Your task to perform on an android device: Open network settings Image 0: 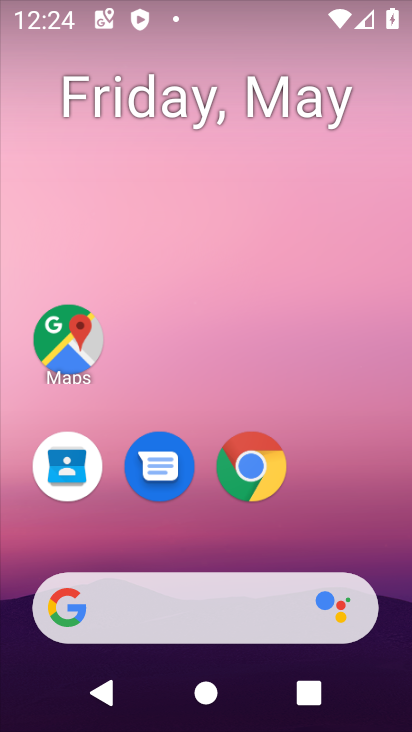
Step 0: drag from (205, 565) to (214, 109)
Your task to perform on an android device: Open network settings Image 1: 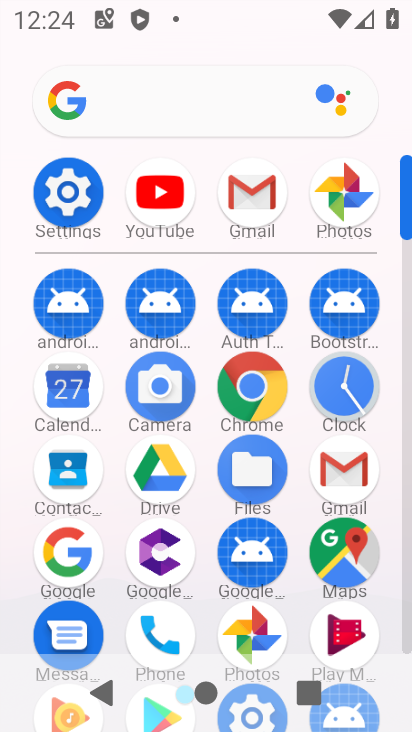
Step 1: click (72, 195)
Your task to perform on an android device: Open network settings Image 2: 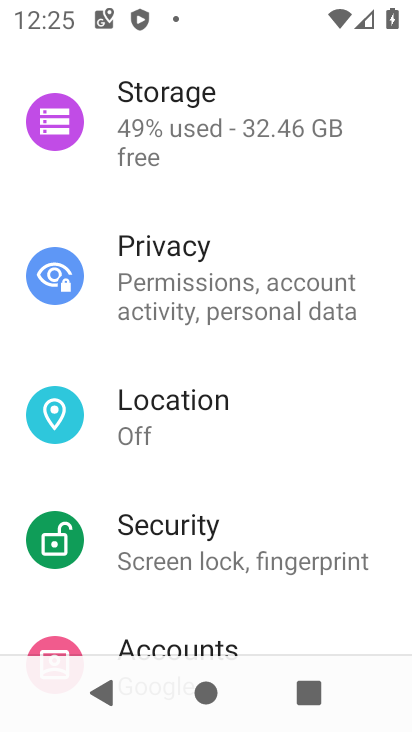
Step 2: drag from (217, 207) to (191, 731)
Your task to perform on an android device: Open network settings Image 3: 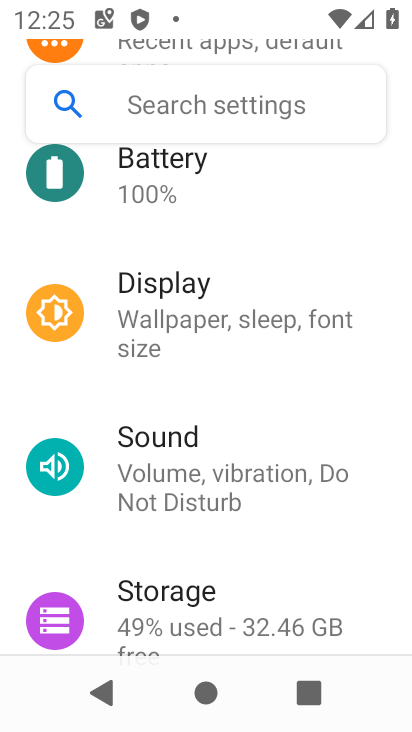
Step 3: drag from (228, 292) to (231, 669)
Your task to perform on an android device: Open network settings Image 4: 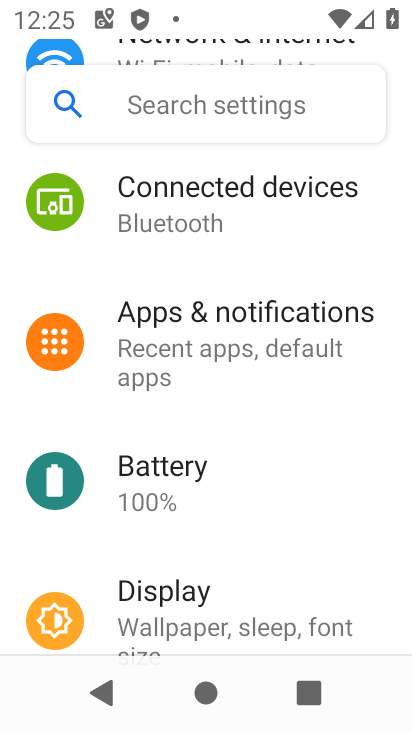
Step 4: drag from (196, 305) to (175, 713)
Your task to perform on an android device: Open network settings Image 5: 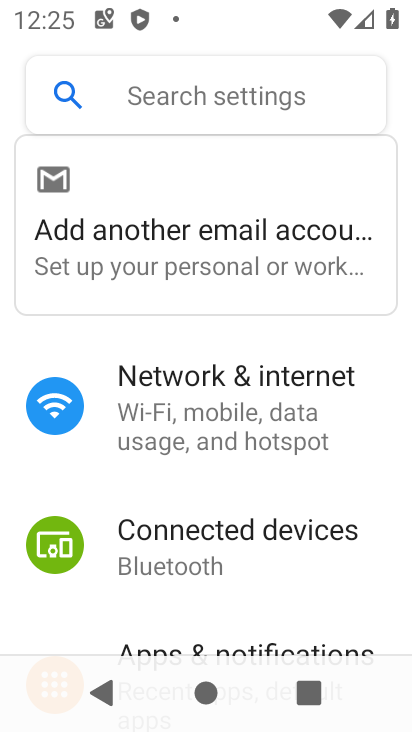
Step 5: click (186, 412)
Your task to perform on an android device: Open network settings Image 6: 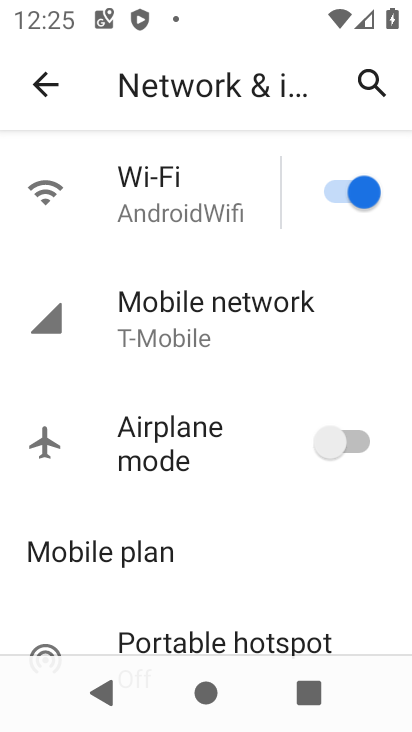
Step 6: task complete